Your task to perform on an android device: turn pop-ups off in chrome Image 0: 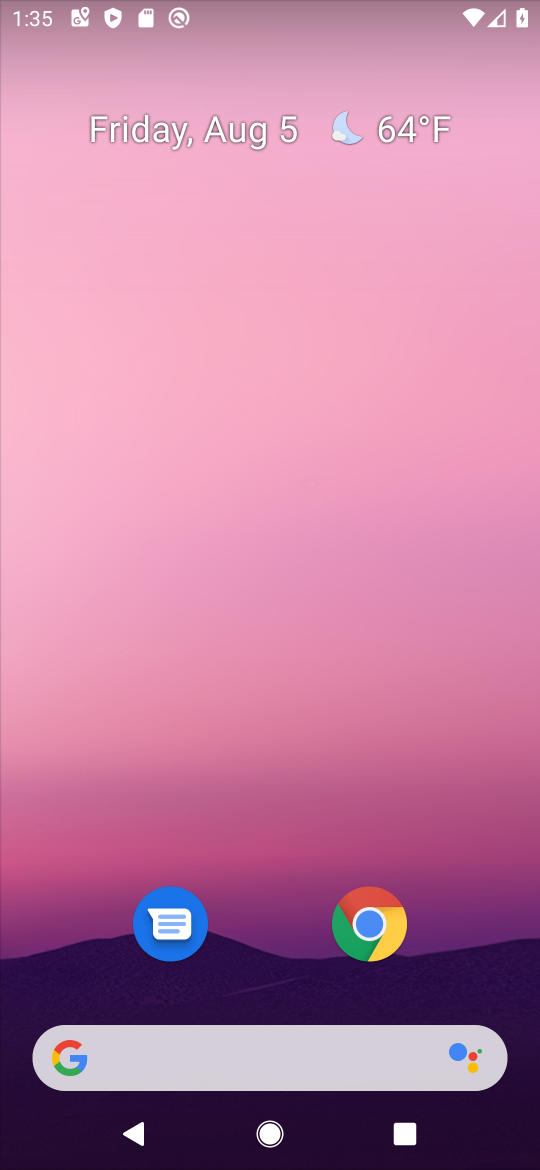
Step 0: click (369, 926)
Your task to perform on an android device: turn pop-ups off in chrome Image 1: 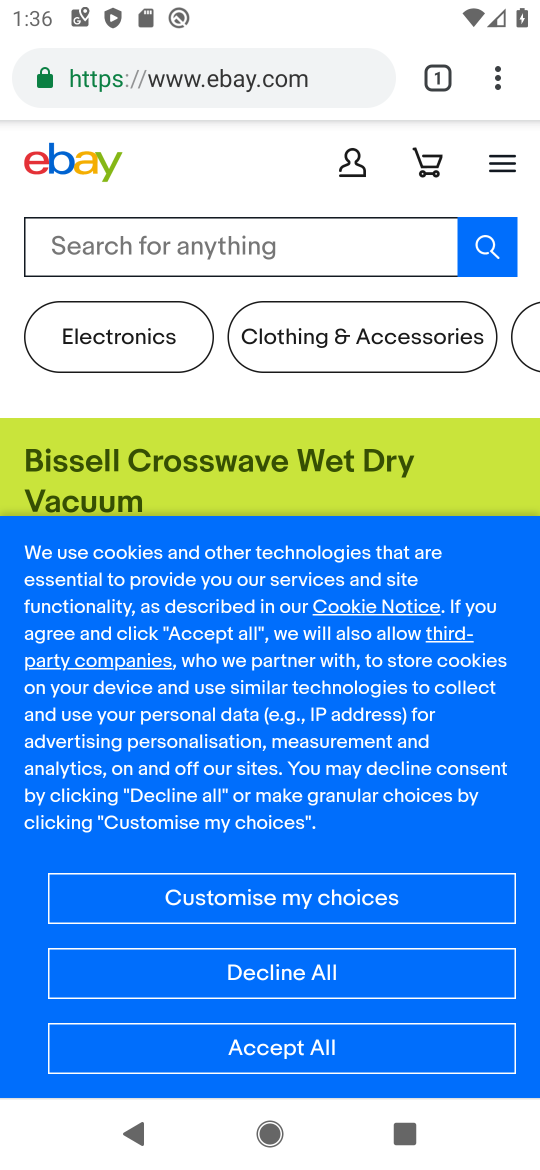
Step 1: click (495, 74)
Your task to perform on an android device: turn pop-ups off in chrome Image 2: 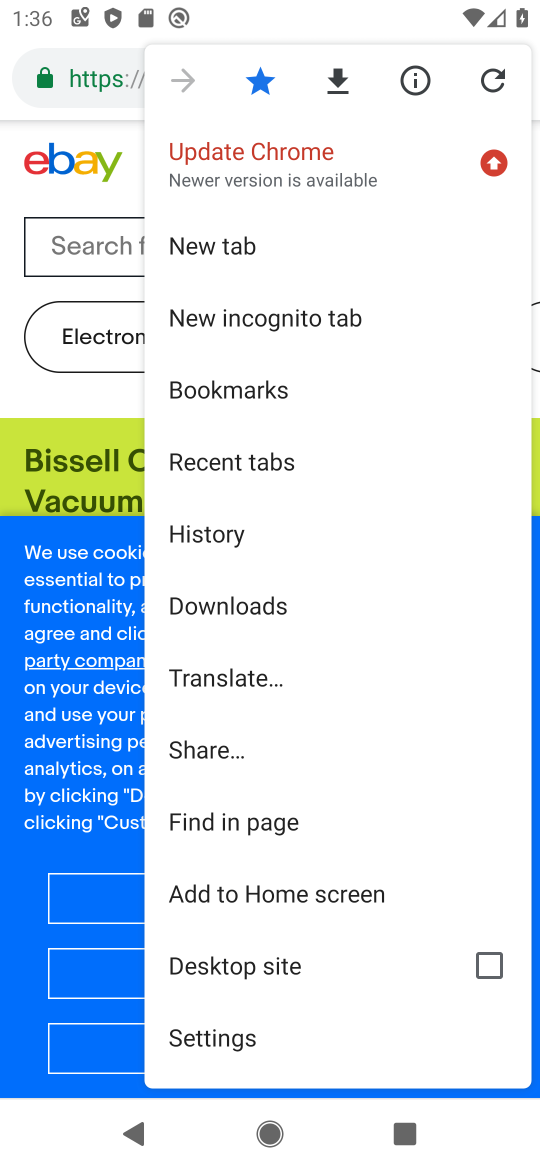
Step 2: click (206, 1032)
Your task to perform on an android device: turn pop-ups off in chrome Image 3: 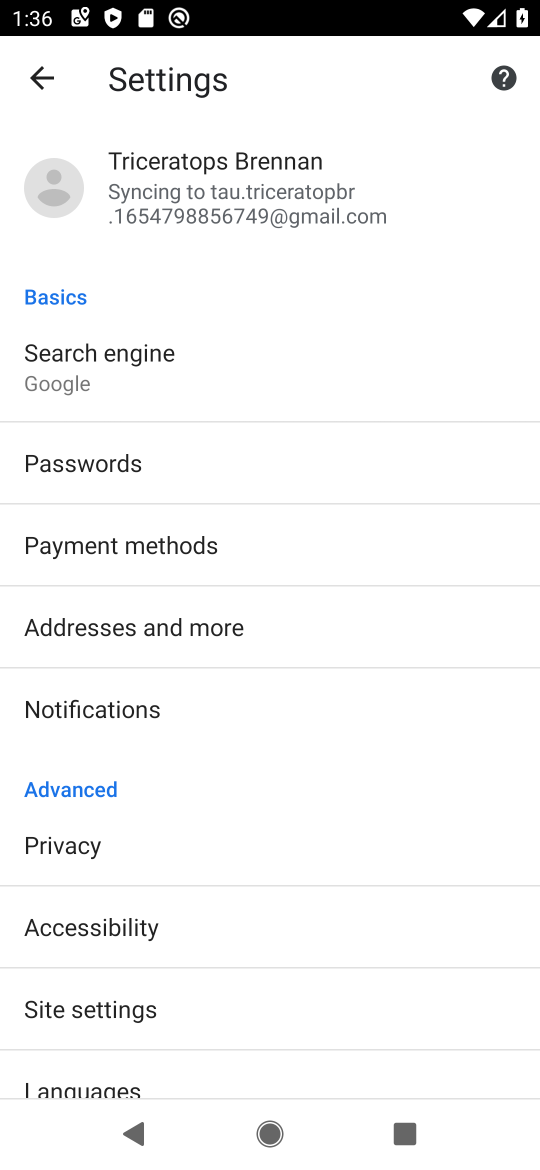
Step 3: click (97, 1007)
Your task to perform on an android device: turn pop-ups off in chrome Image 4: 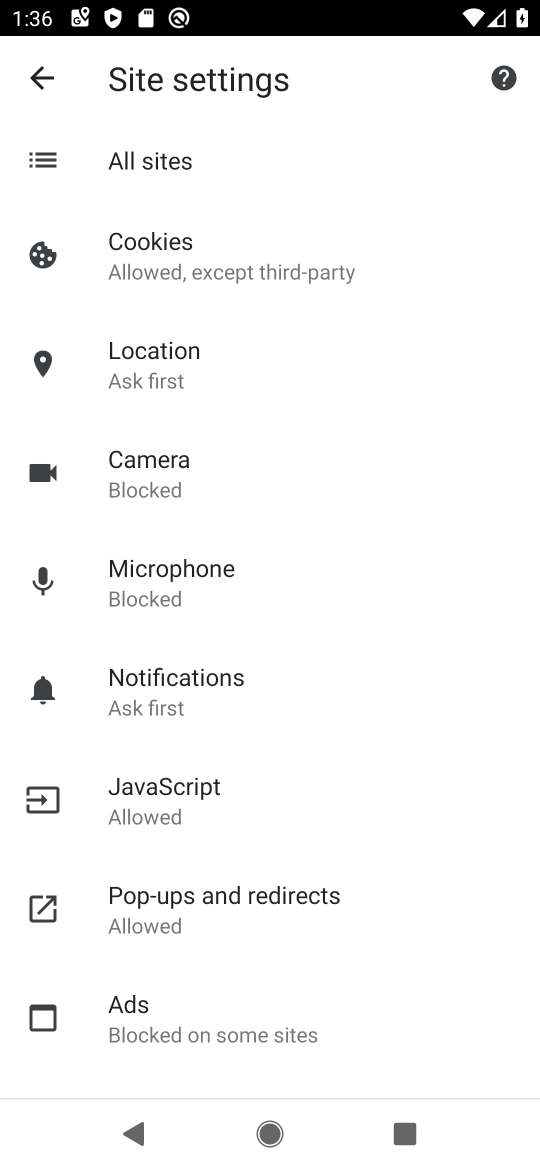
Step 4: click (172, 908)
Your task to perform on an android device: turn pop-ups off in chrome Image 5: 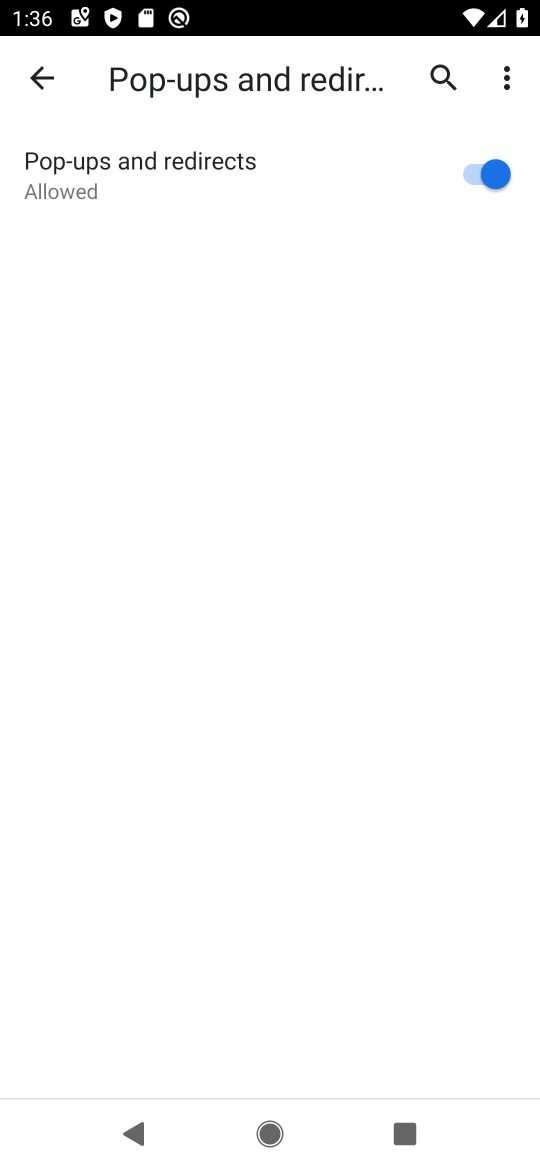
Step 5: click (482, 170)
Your task to perform on an android device: turn pop-ups off in chrome Image 6: 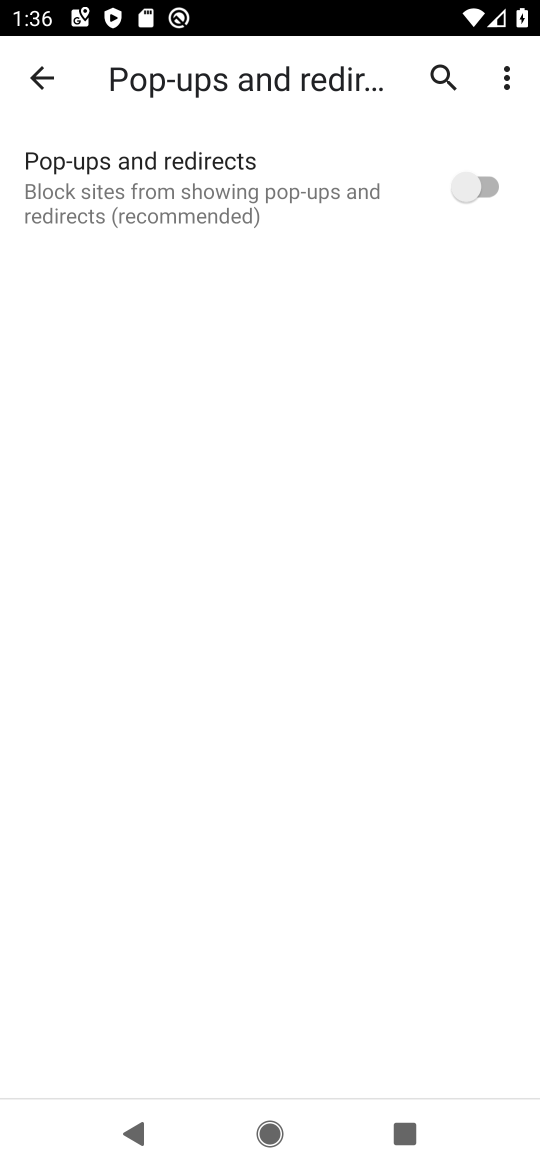
Step 6: task complete